Your task to perform on an android device: Open privacy settings Image 0: 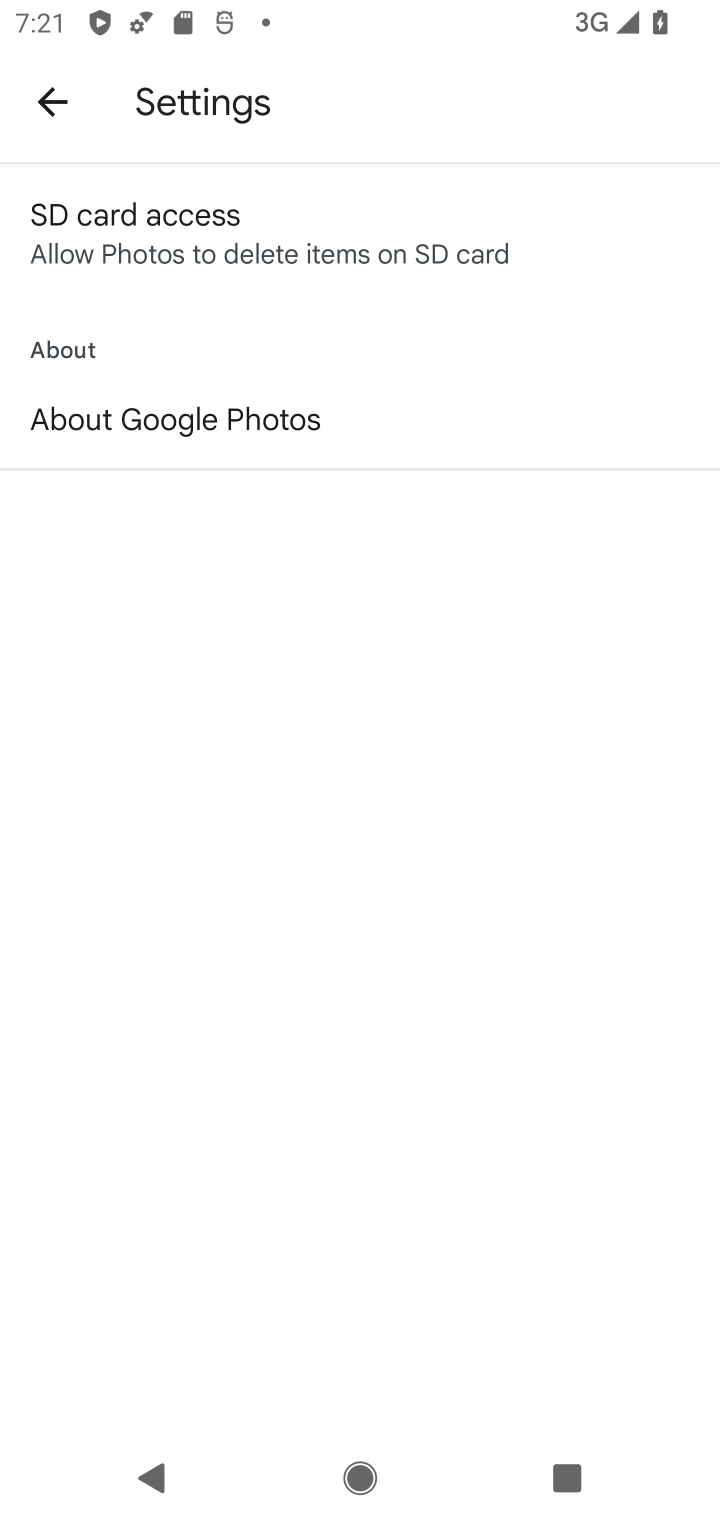
Step 0: press home button
Your task to perform on an android device: Open privacy settings Image 1: 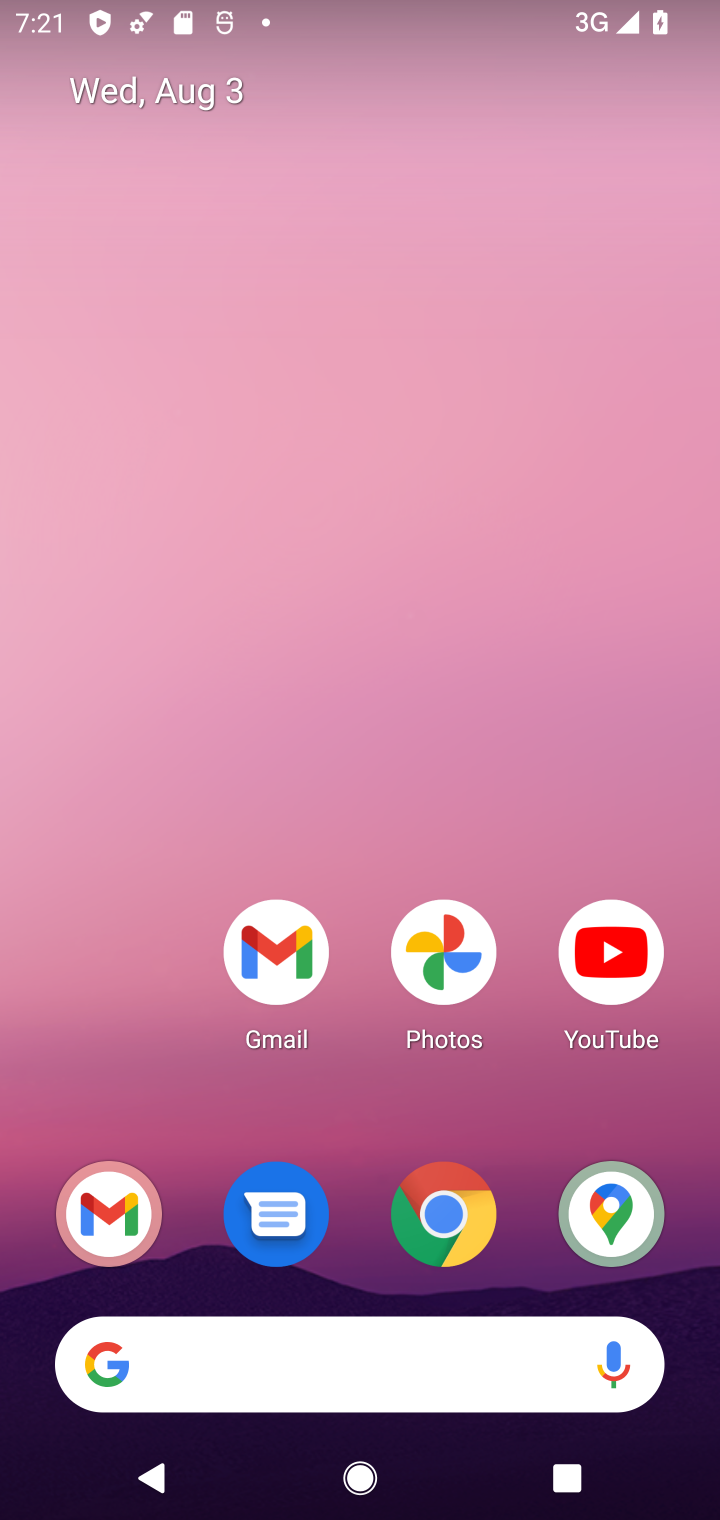
Step 1: drag from (132, 895) to (193, 73)
Your task to perform on an android device: Open privacy settings Image 2: 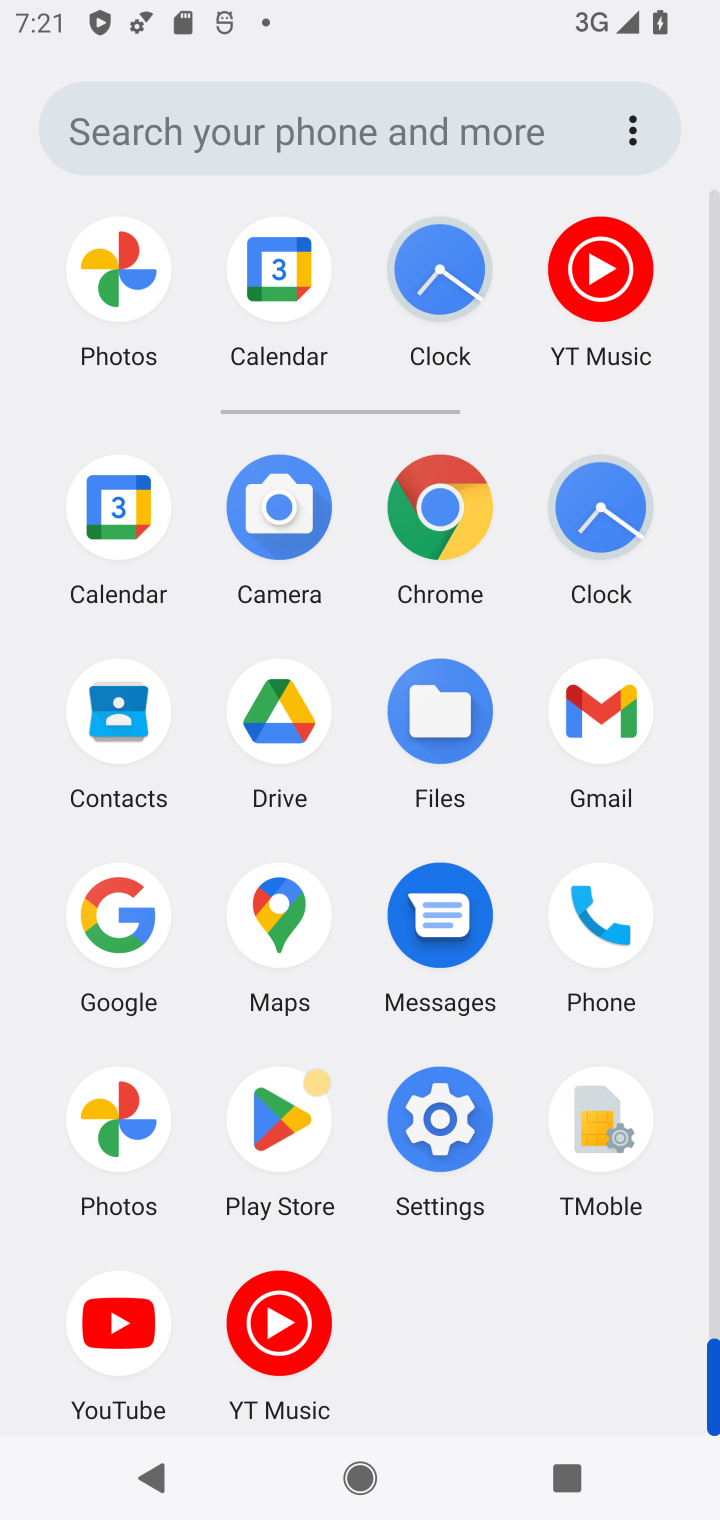
Step 2: click (448, 1135)
Your task to perform on an android device: Open privacy settings Image 3: 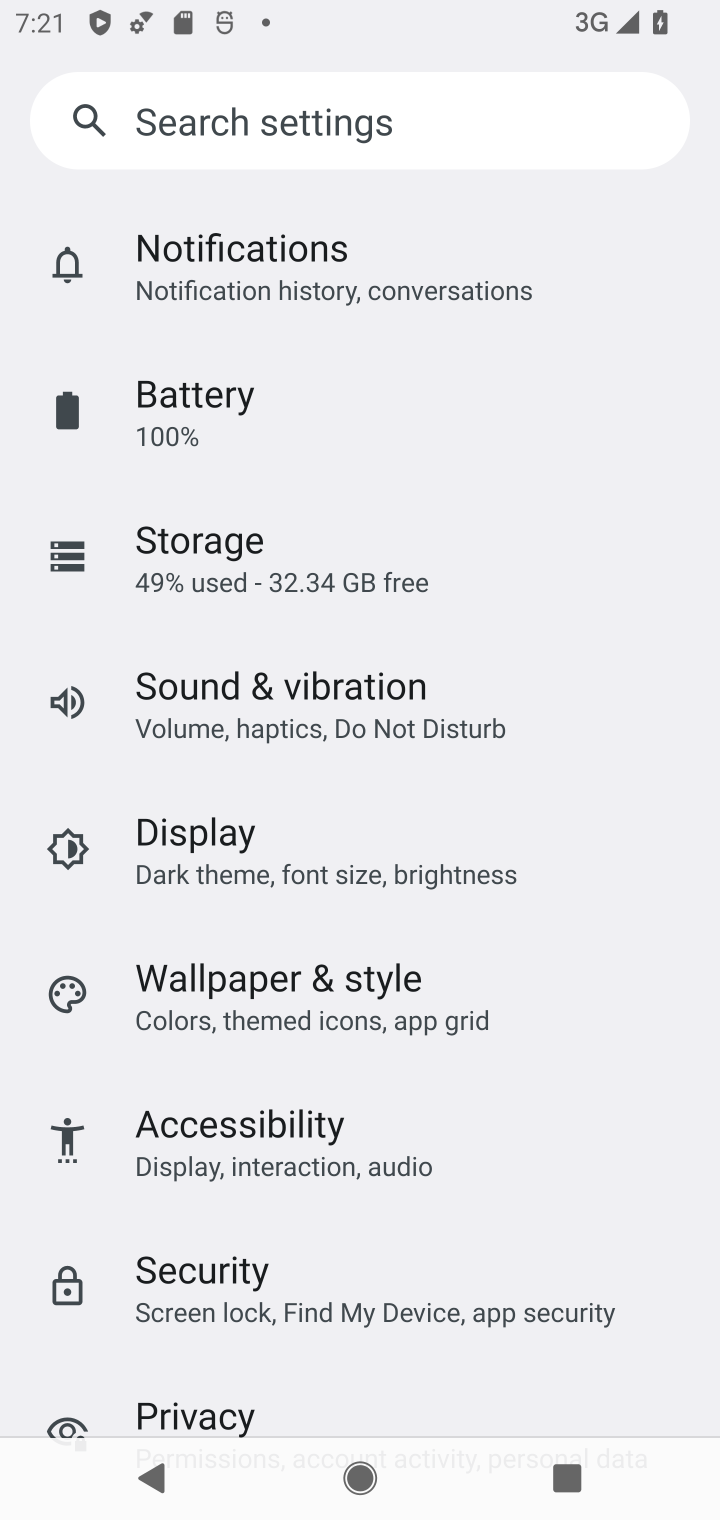
Step 3: drag from (290, 374) to (246, 1229)
Your task to perform on an android device: Open privacy settings Image 4: 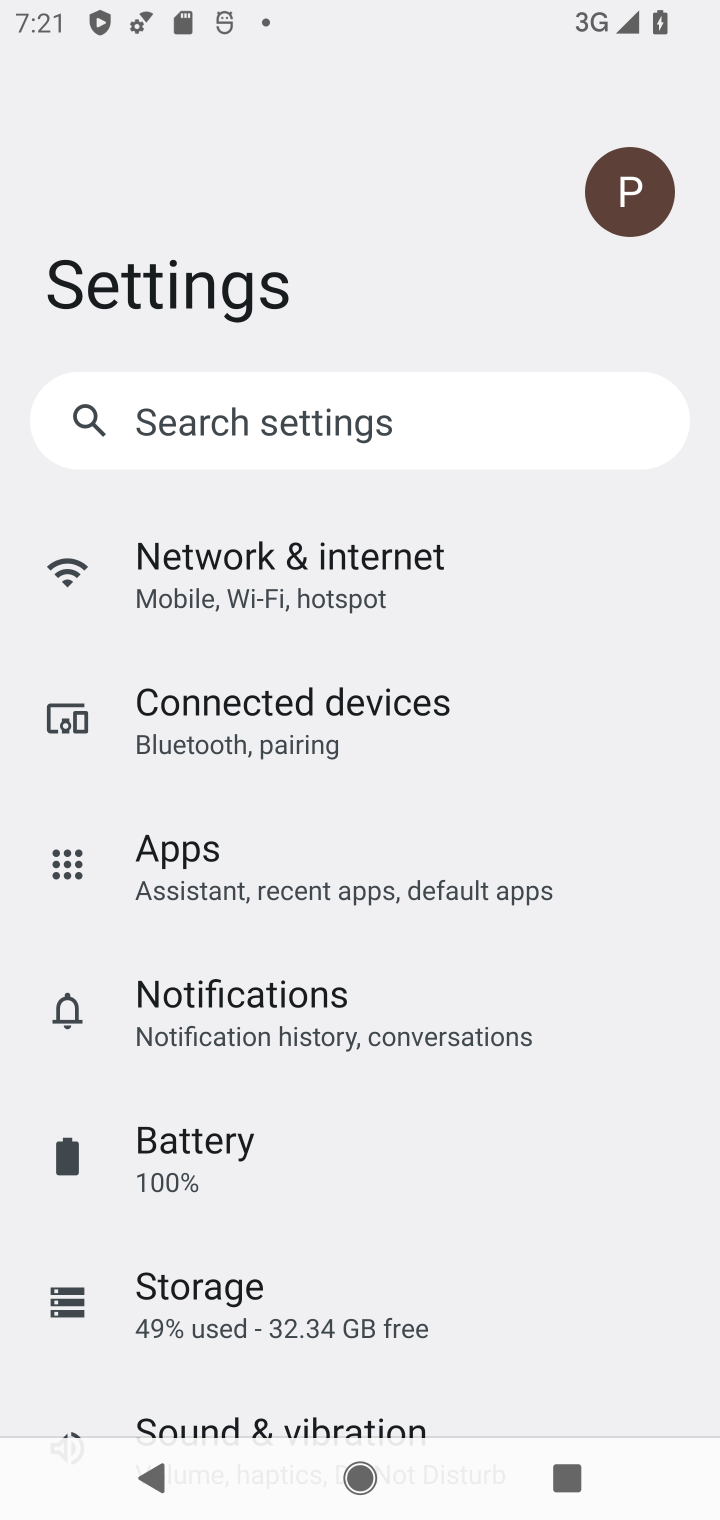
Step 4: drag from (233, 1279) to (382, 204)
Your task to perform on an android device: Open privacy settings Image 5: 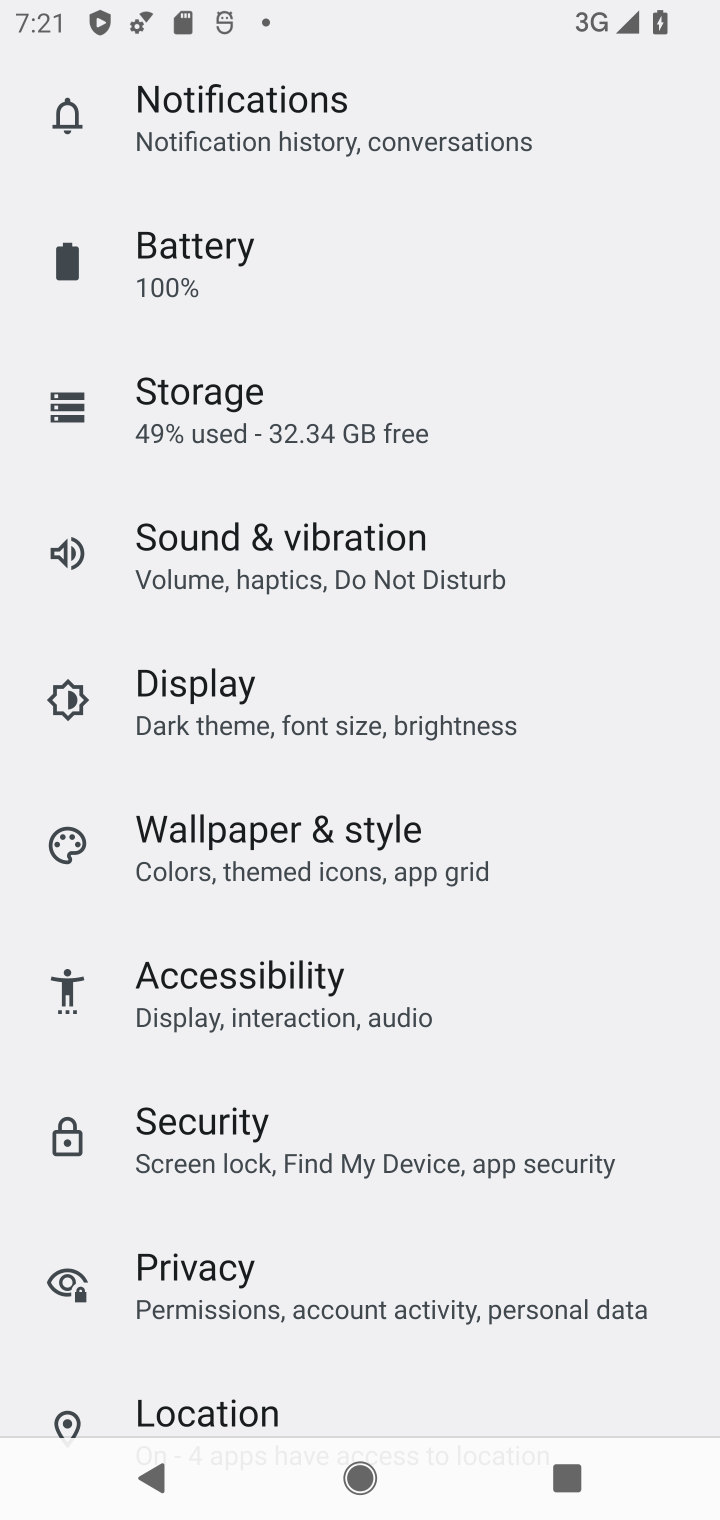
Step 5: click (175, 1274)
Your task to perform on an android device: Open privacy settings Image 6: 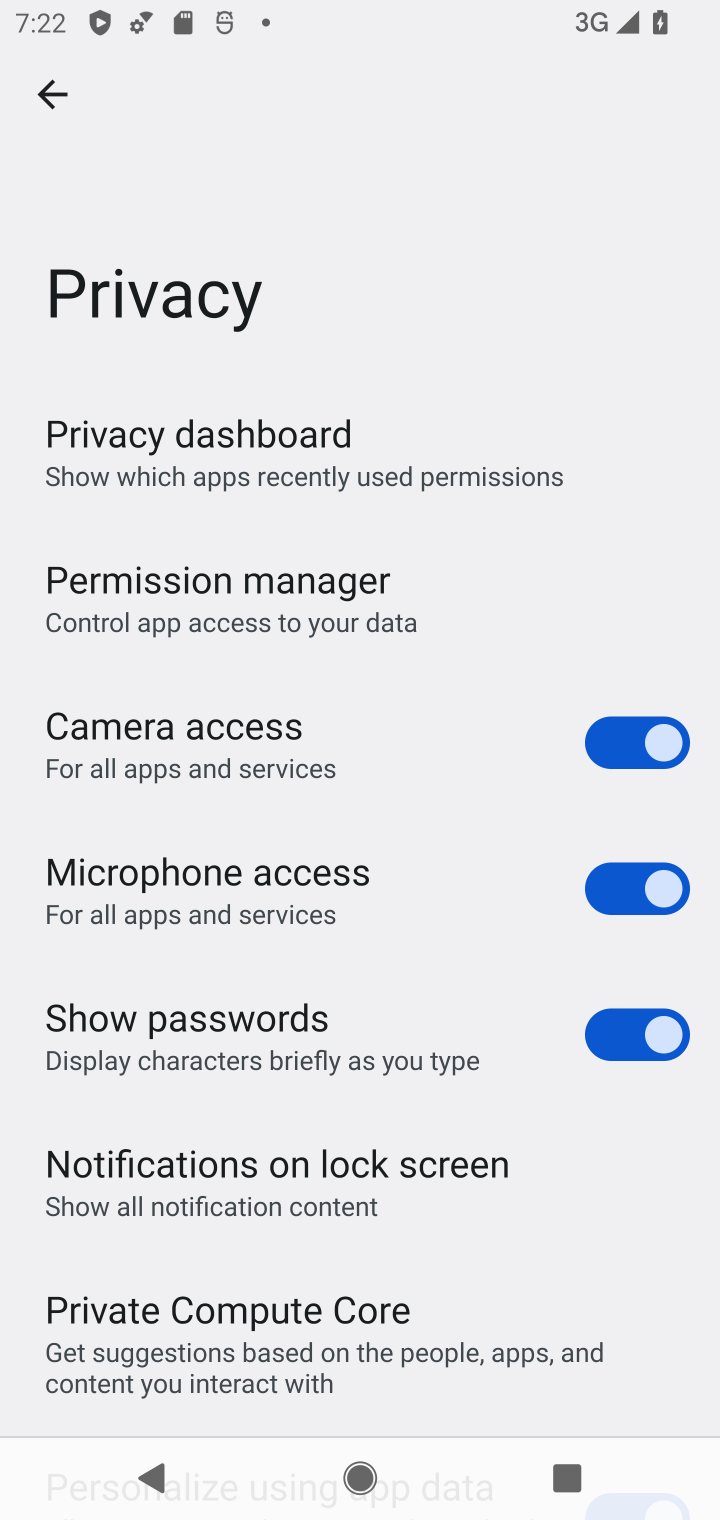
Step 6: task complete